Your task to perform on an android device: empty trash in google photos Image 0: 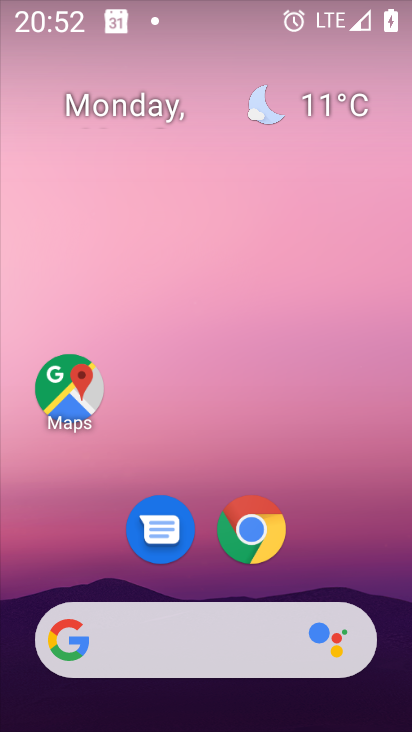
Step 0: drag from (236, 663) to (209, 100)
Your task to perform on an android device: empty trash in google photos Image 1: 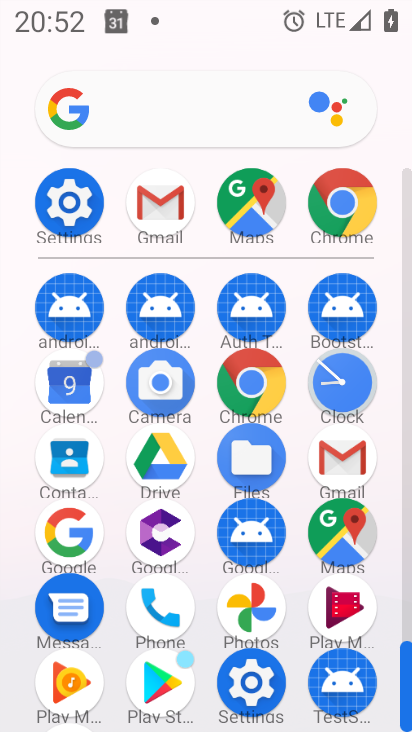
Step 1: click (256, 605)
Your task to perform on an android device: empty trash in google photos Image 2: 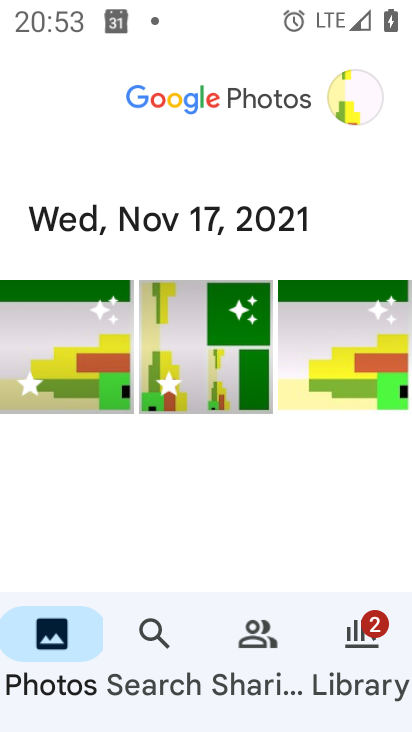
Step 2: click (364, 99)
Your task to perform on an android device: empty trash in google photos Image 3: 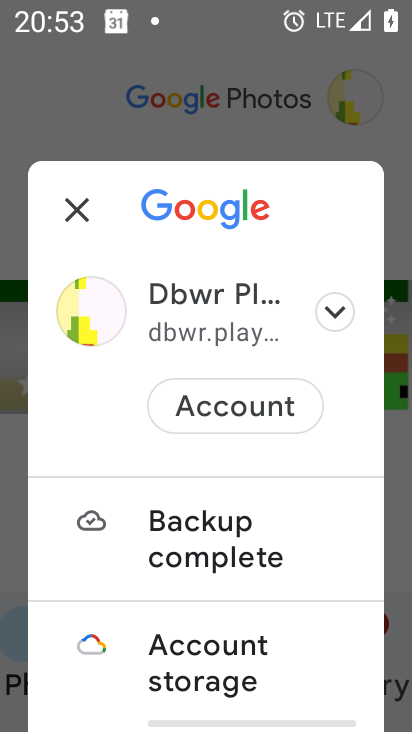
Step 3: press back button
Your task to perform on an android device: empty trash in google photos Image 4: 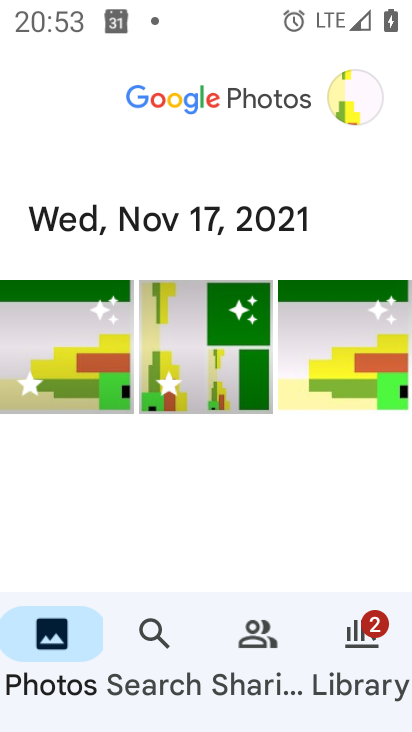
Step 4: click (367, 672)
Your task to perform on an android device: empty trash in google photos Image 5: 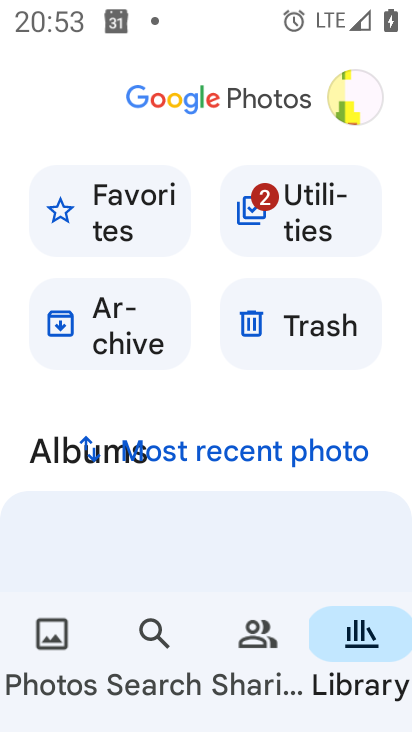
Step 5: click (319, 317)
Your task to perform on an android device: empty trash in google photos Image 6: 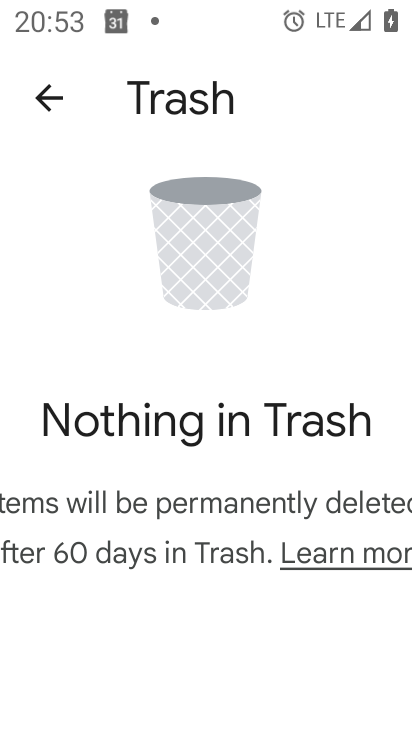
Step 6: task complete